Your task to perform on an android device: change alarm snooze length Image 0: 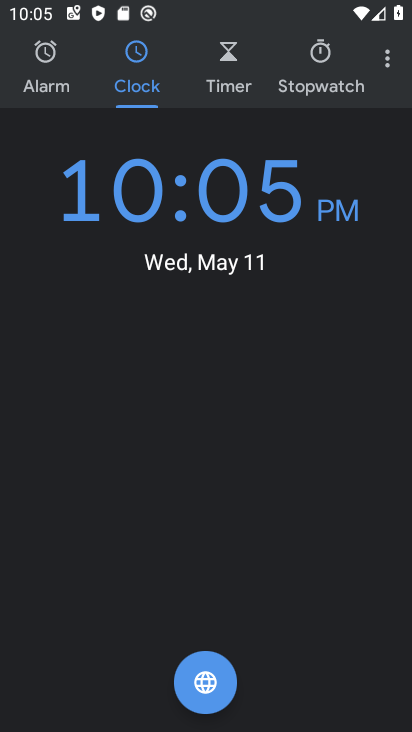
Step 0: press home button
Your task to perform on an android device: change alarm snooze length Image 1: 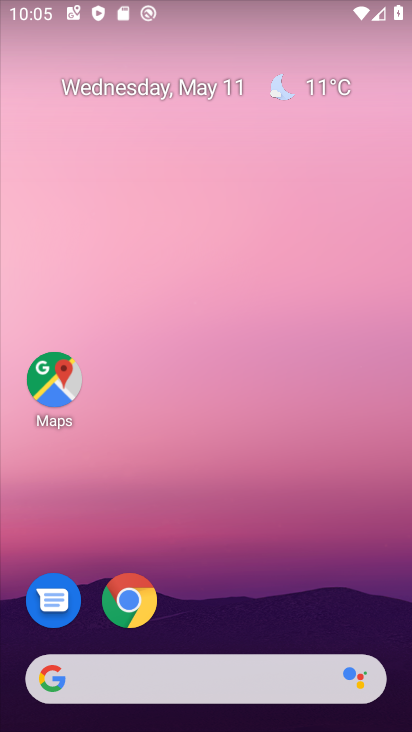
Step 1: task complete